Your task to perform on an android device: Add "razer blade" to the cart on walmart Image 0: 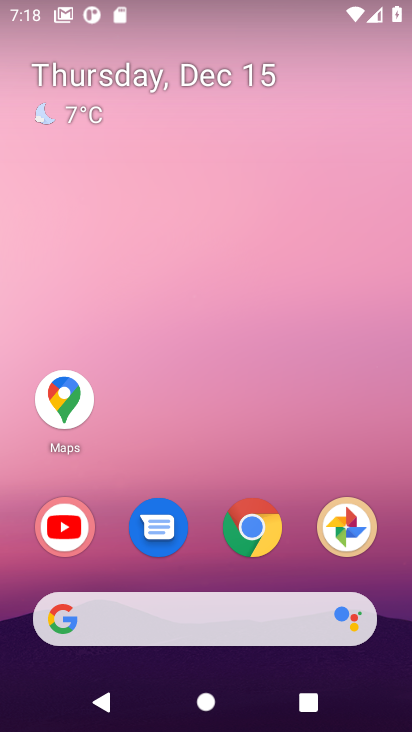
Step 0: click (270, 515)
Your task to perform on an android device: Add "razer blade" to the cart on walmart Image 1: 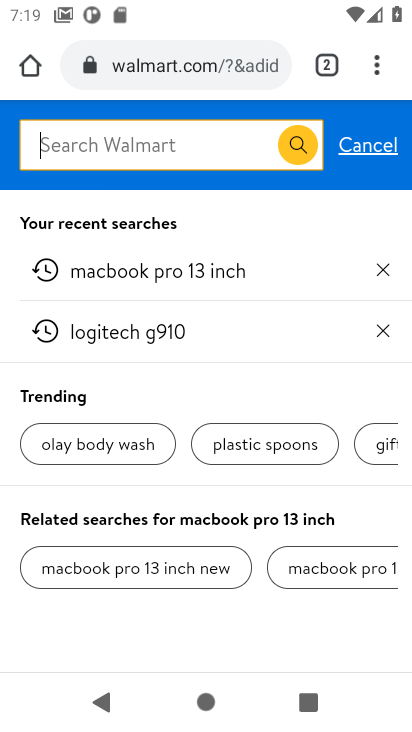
Step 1: type "razer blade"
Your task to perform on an android device: Add "razer blade" to the cart on walmart Image 2: 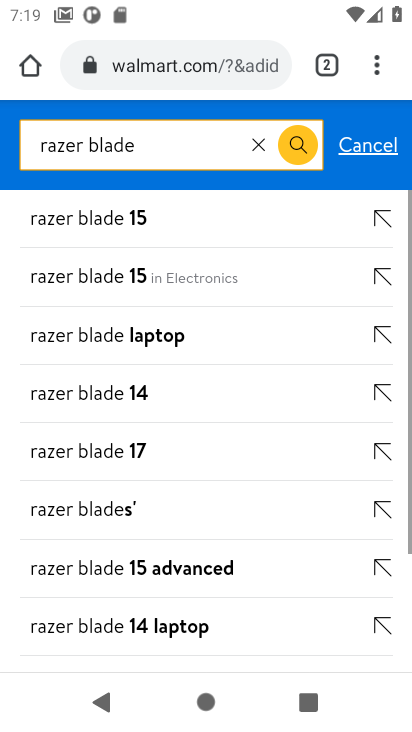
Step 2: click (301, 152)
Your task to perform on an android device: Add "razer blade" to the cart on walmart Image 3: 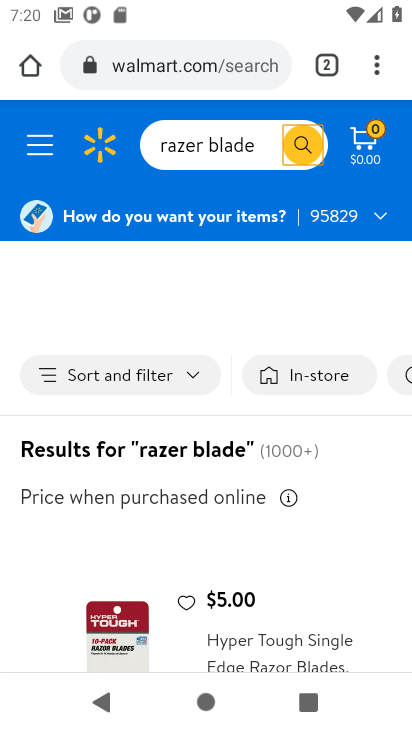
Step 3: click (294, 625)
Your task to perform on an android device: Add "razer blade" to the cart on walmart Image 4: 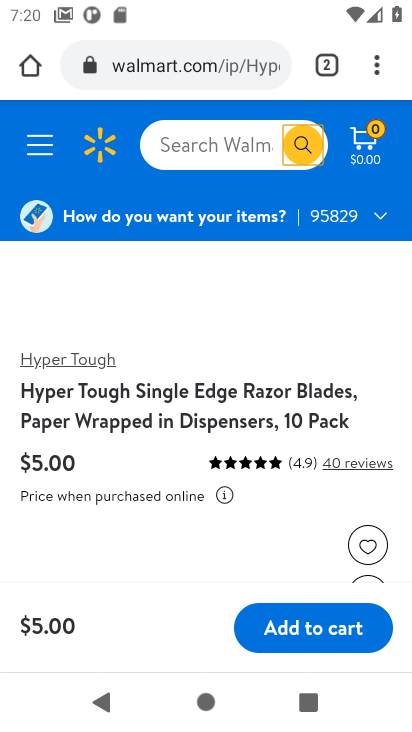
Step 4: click (267, 628)
Your task to perform on an android device: Add "razer blade" to the cart on walmart Image 5: 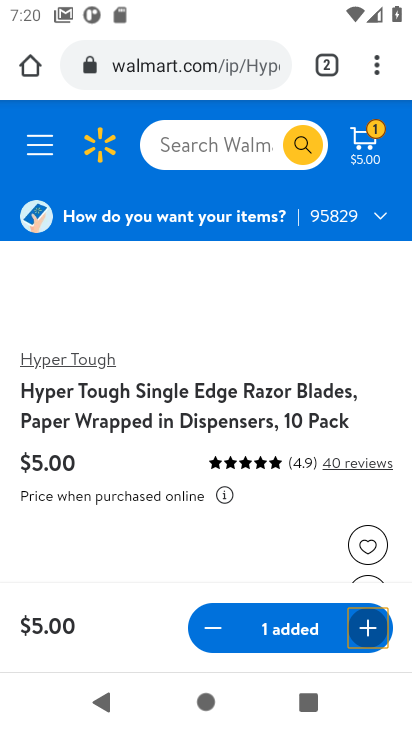
Step 5: task complete